Your task to perform on an android device: What's the weather going to be this weekend? Image 0: 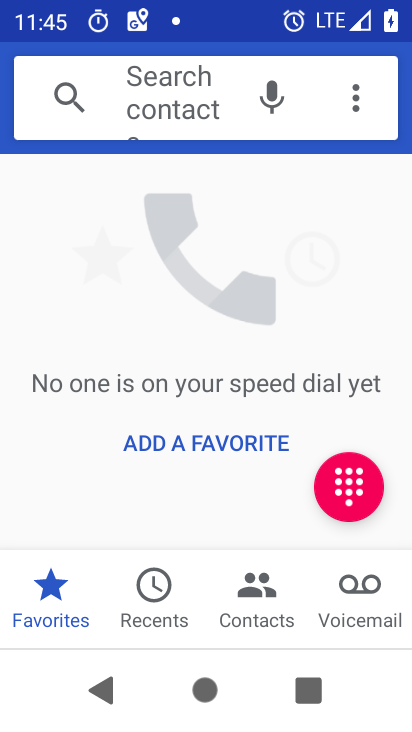
Step 0: press home button
Your task to perform on an android device: What's the weather going to be this weekend? Image 1: 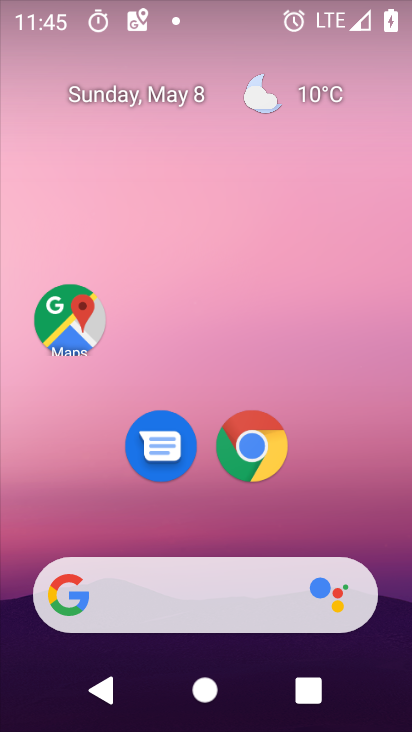
Step 1: click (321, 107)
Your task to perform on an android device: What's the weather going to be this weekend? Image 2: 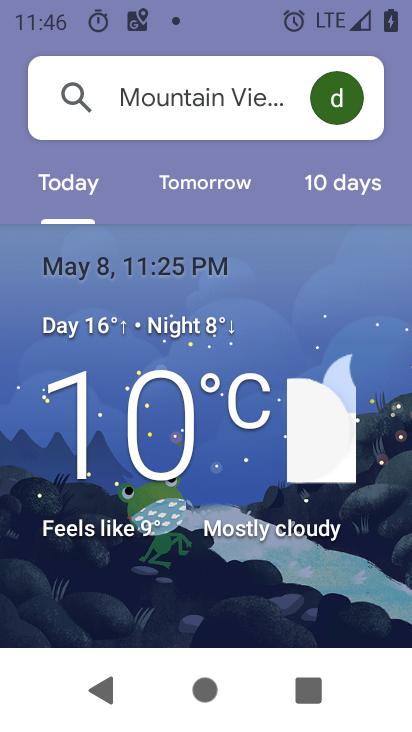
Step 2: click (339, 188)
Your task to perform on an android device: What's the weather going to be this weekend? Image 3: 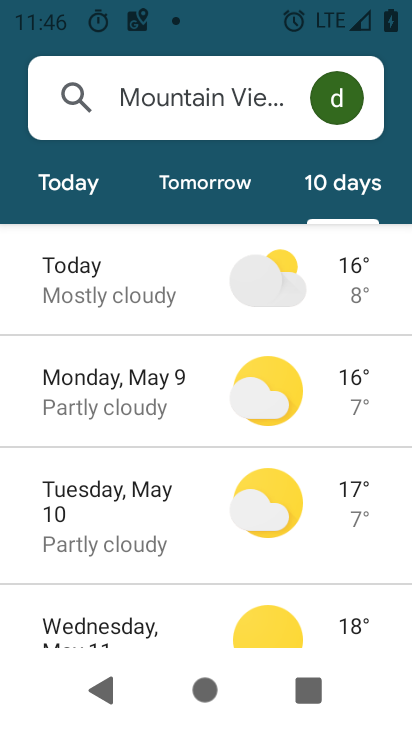
Step 3: task complete